Your task to perform on an android device: add a contact Image 0: 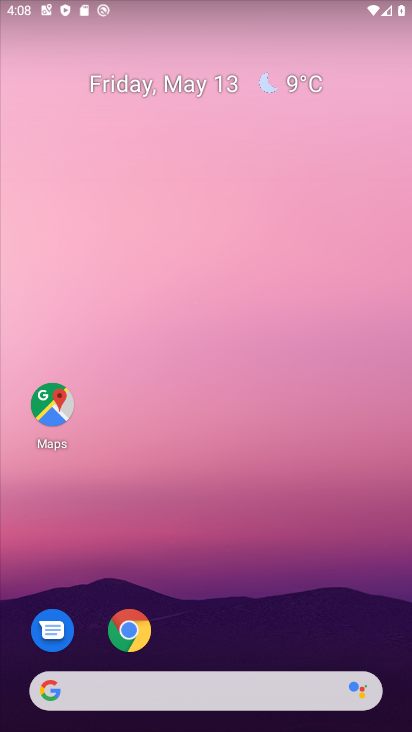
Step 0: drag from (261, 497) to (178, 8)
Your task to perform on an android device: add a contact Image 1: 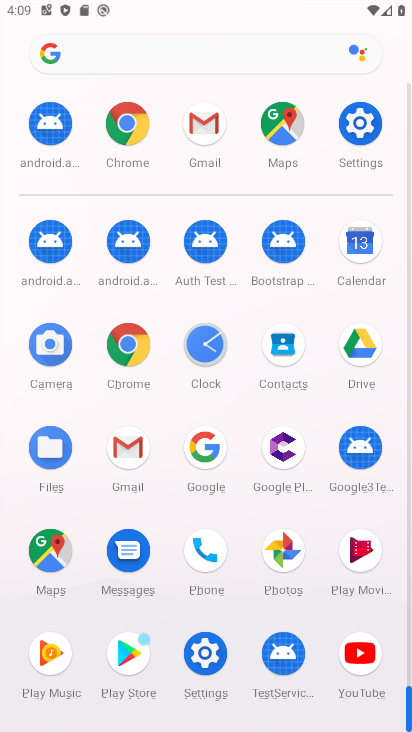
Step 1: click (276, 344)
Your task to perform on an android device: add a contact Image 2: 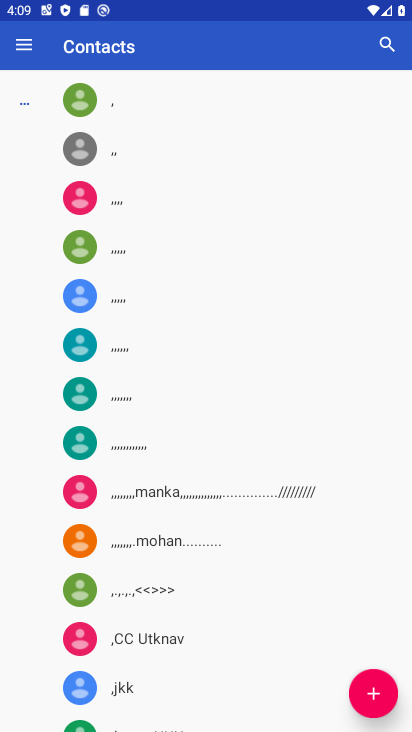
Step 2: click (371, 690)
Your task to perform on an android device: add a contact Image 3: 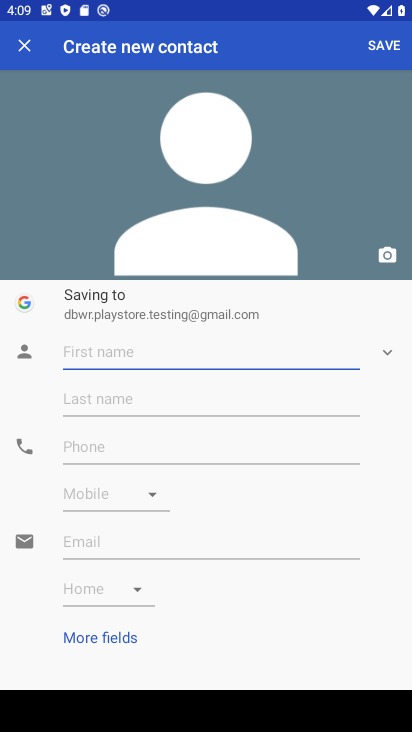
Step 3: type "DFGHJK"
Your task to perform on an android device: add a contact Image 4: 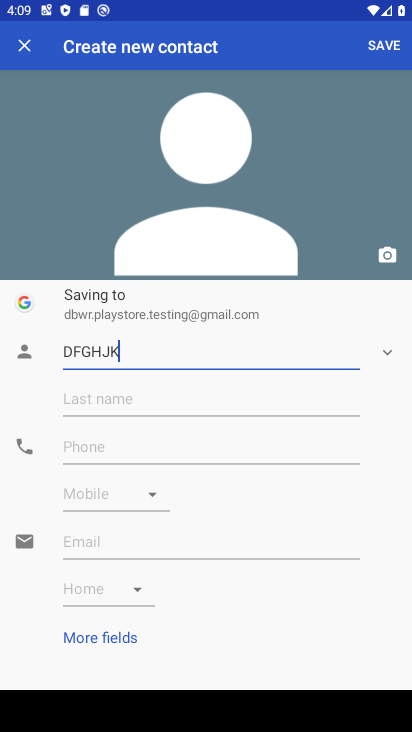
Step 4: type ""
Your task to perform on an android device: add a contact Image 5: 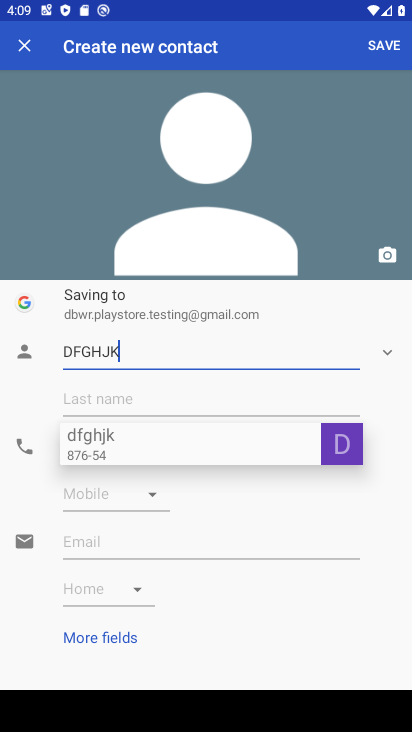
Step 5: click (97, 443)
Your task to perform on an android device: add a contact Image 6: 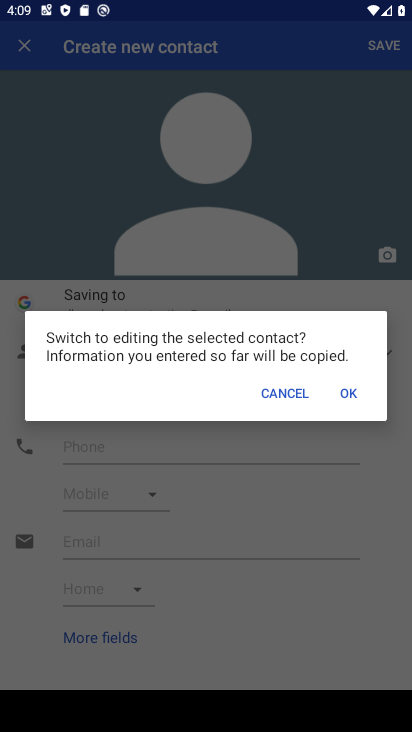
Step 6: click (345, 394)
Your task to perform on an android device: add a contact Image 7: 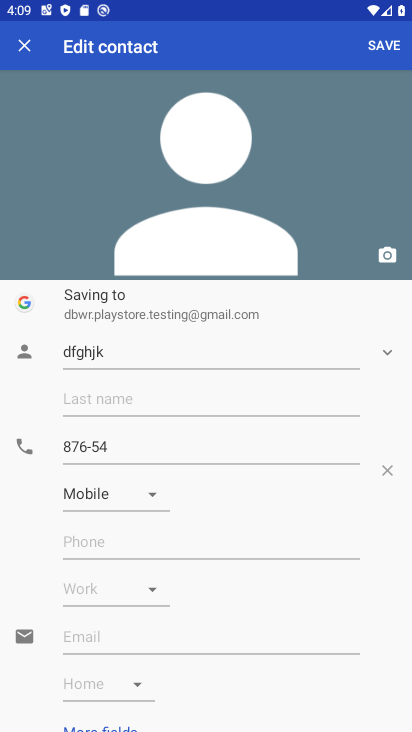
Step 7: click (388, 52)
Your task to perform on an android device: add a contact Image 8: 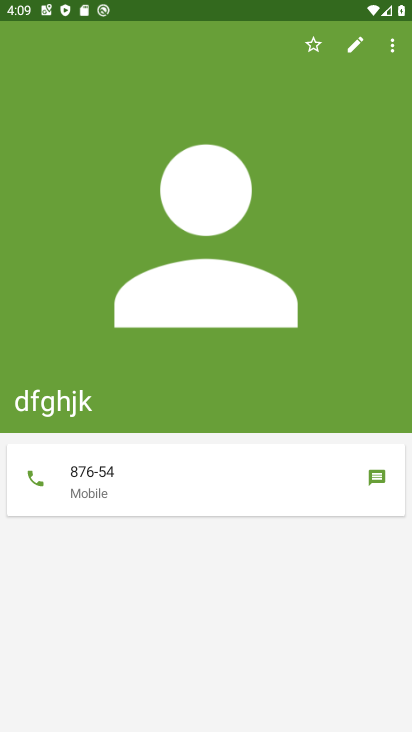
Step 8: task complete